Your task to perform on an android device: change keyboard looks Image 0: 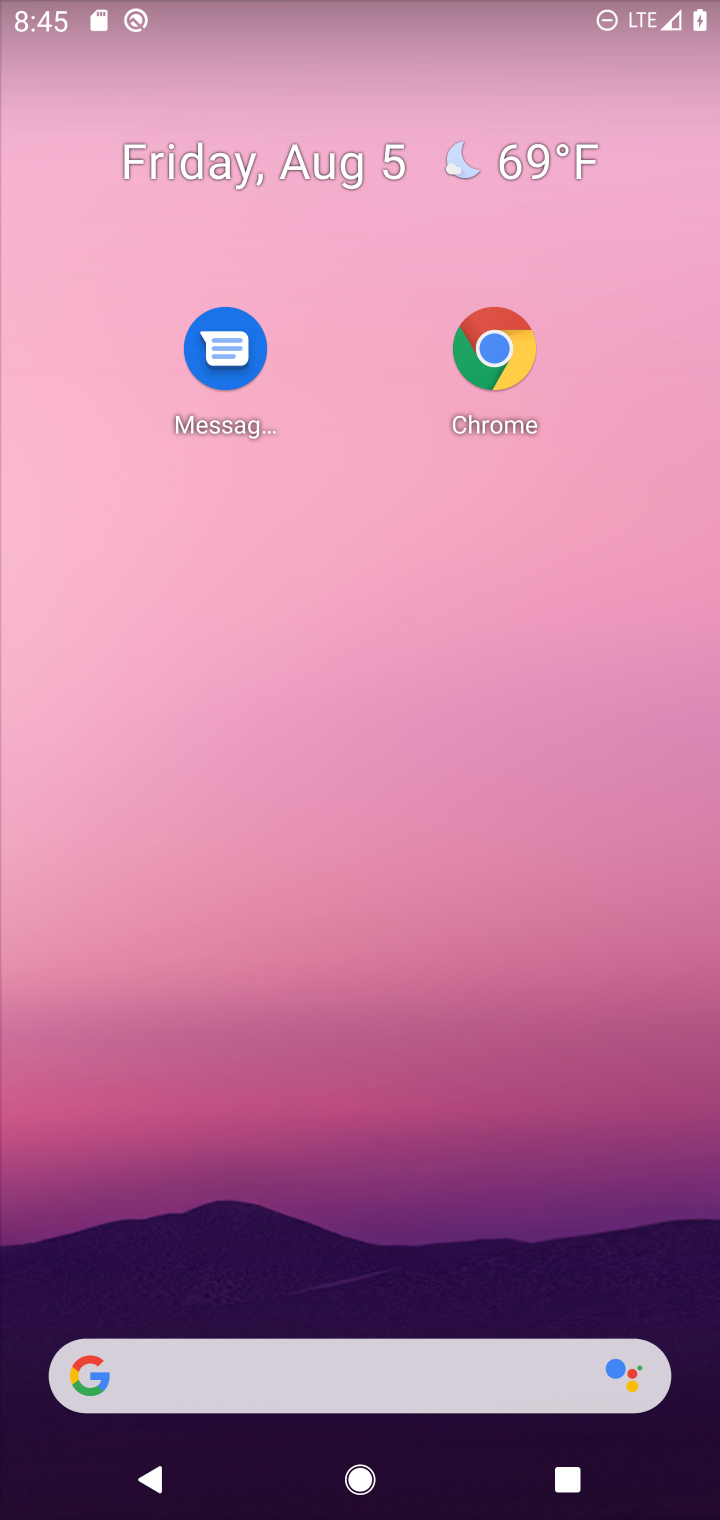
Step 0: press home button
Your task to perform on an android device: change keyboard looks Image 1: 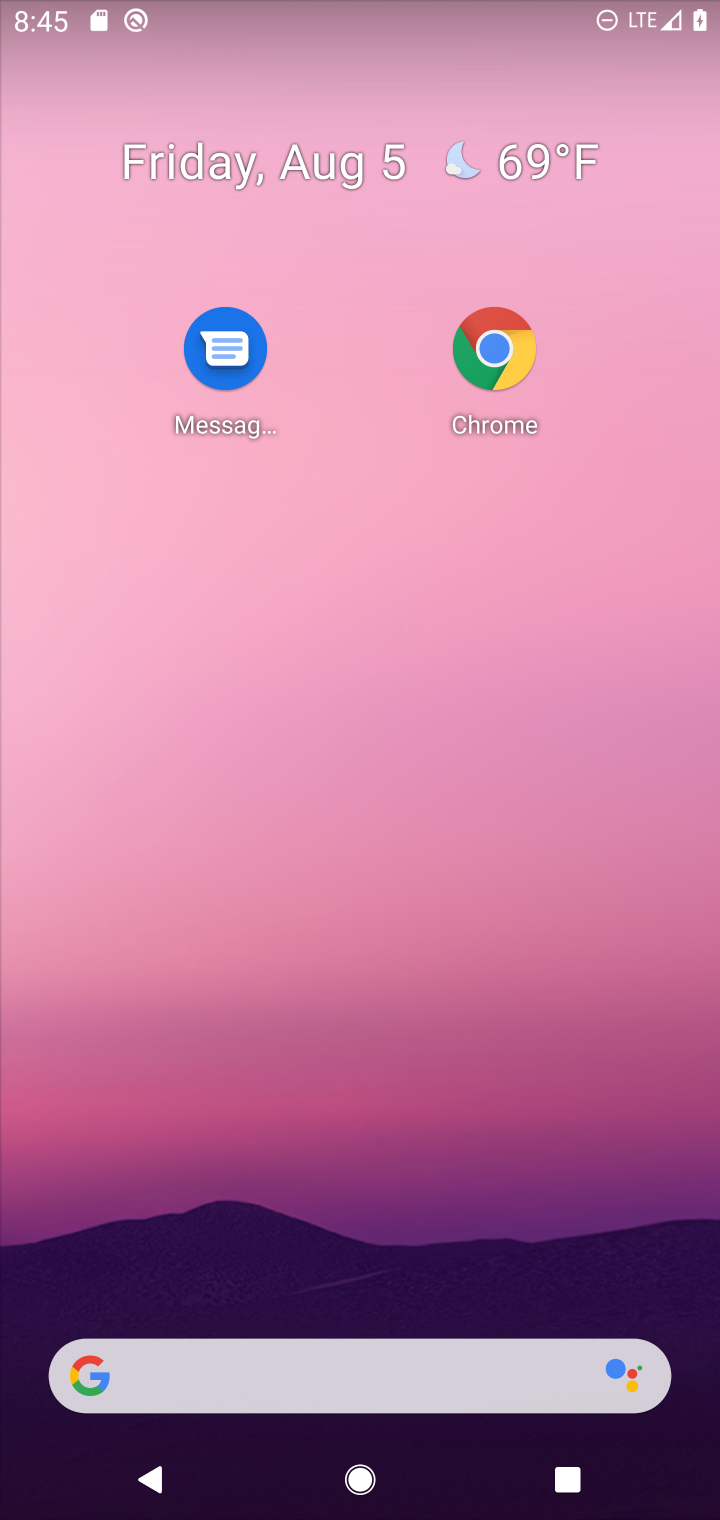
Step 1: drag from (491, 1438) to (454, 665)
Your task to perform on an android device: change keyboard looks Image 2: 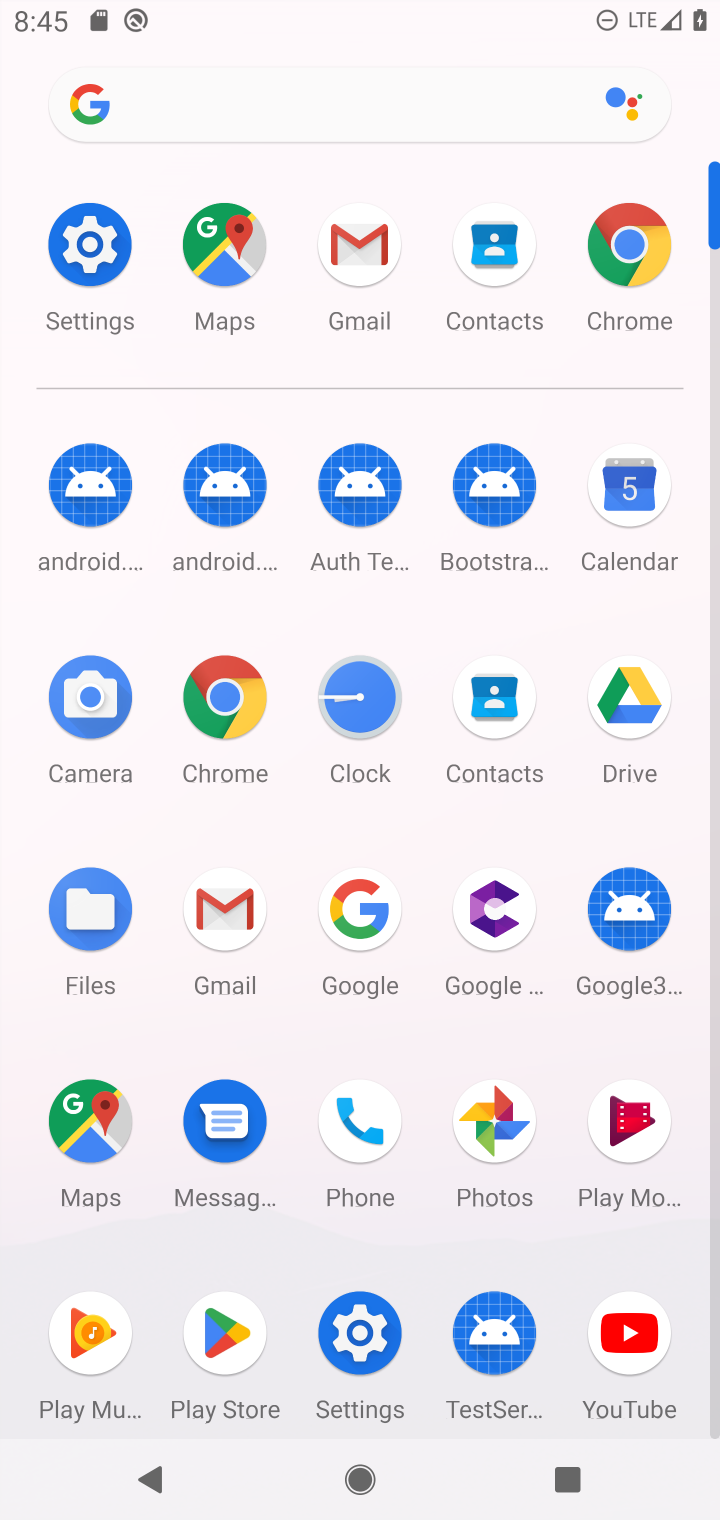
Step 2: click (67, 265)
Your task to perform on an android device: change keyboard looks Image 3: 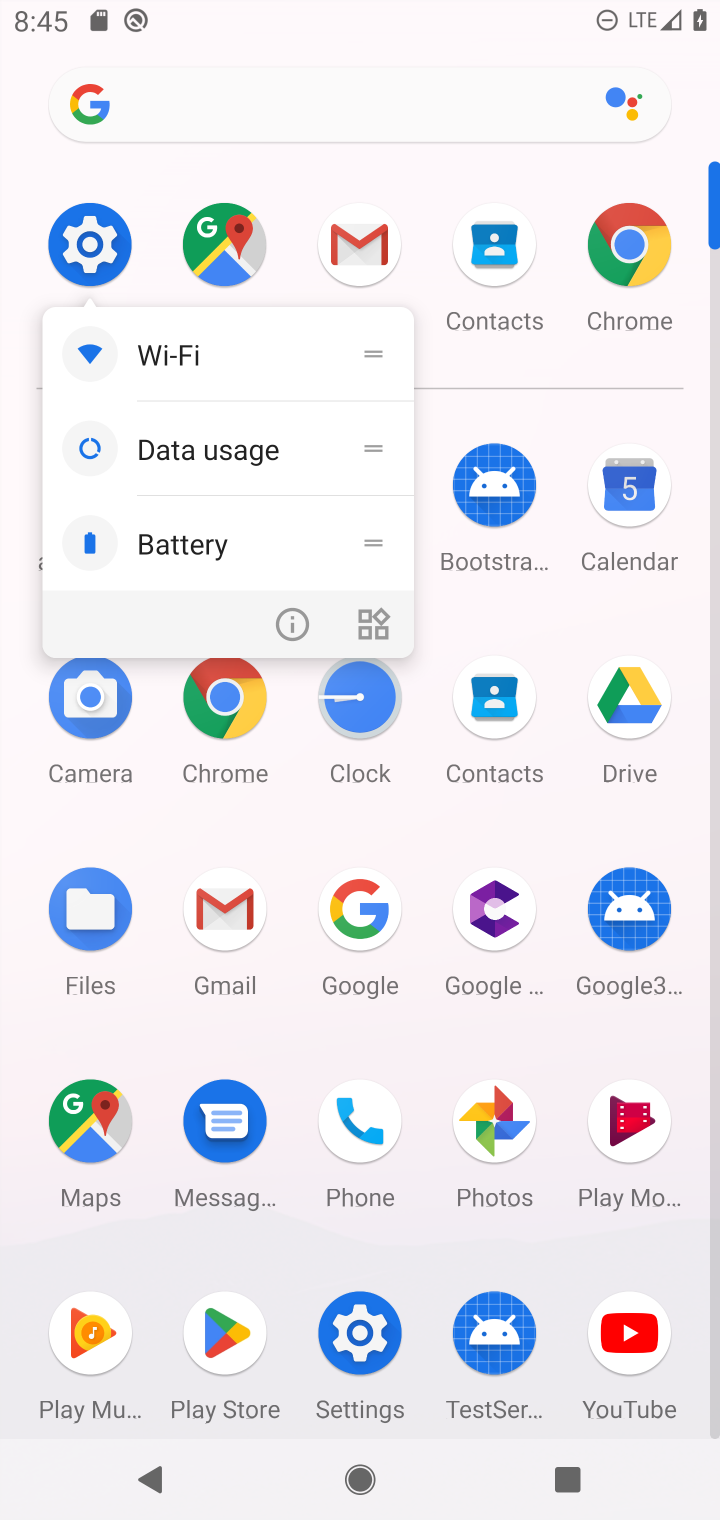
Step 3: click (89, 246)
Your task to perform on an android device: change keyboard looks Image 4: 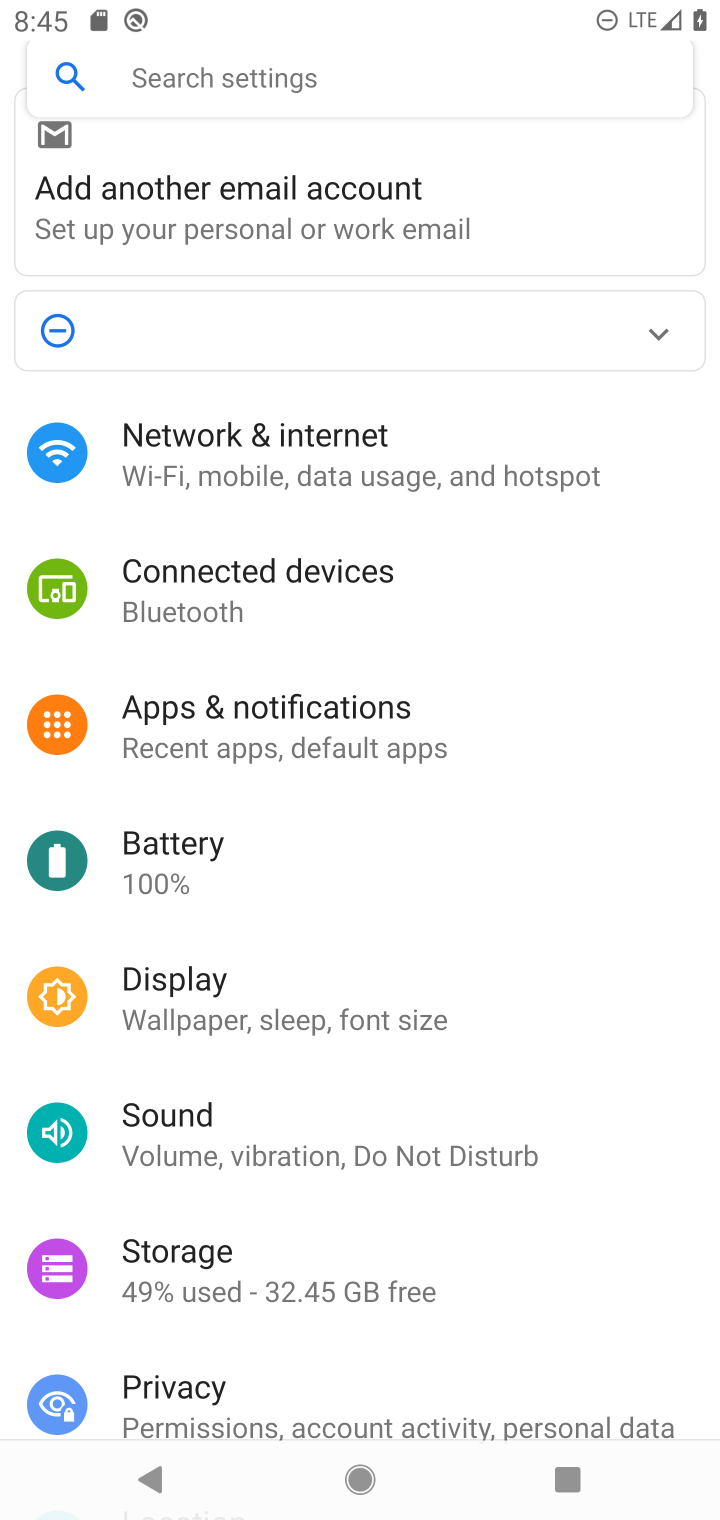
Step 4: click (256, 84)
Your task to perform on an android device: change keyboard looks Image 5: 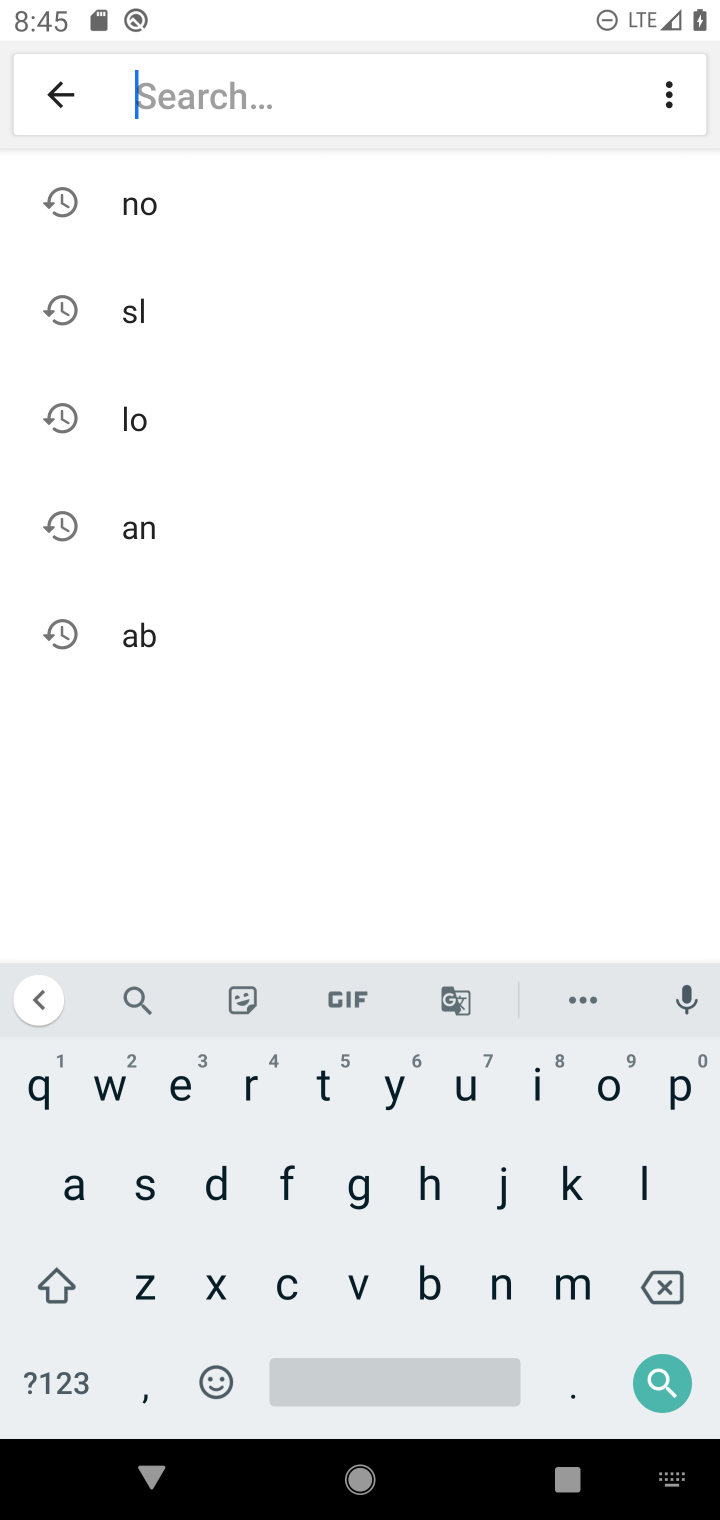
Step 5: click (574, 1180)
Your task to perform on an android device: change keyboard looks Image 6: 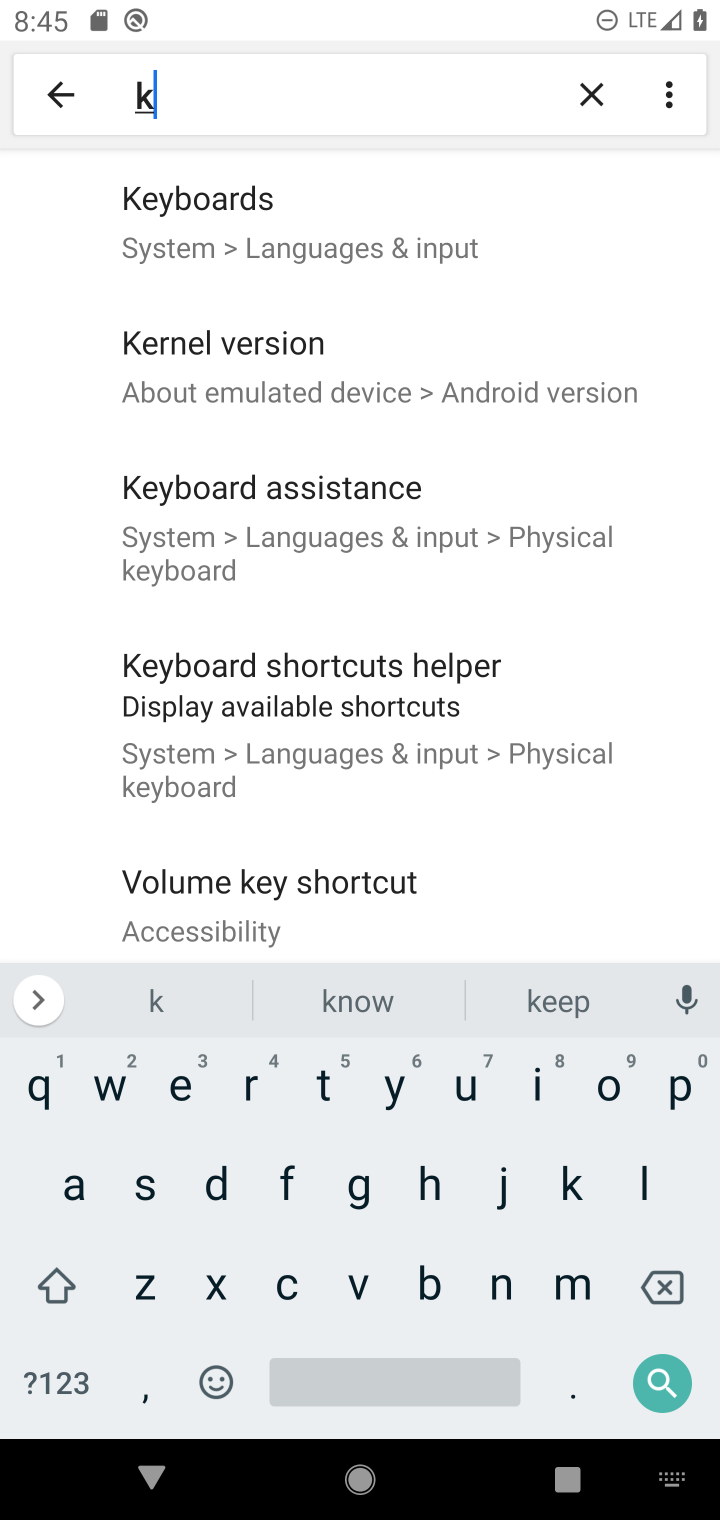
Step 6: click (233, 212)
Your task to perform on an android device: change keyboard looks Image 7: 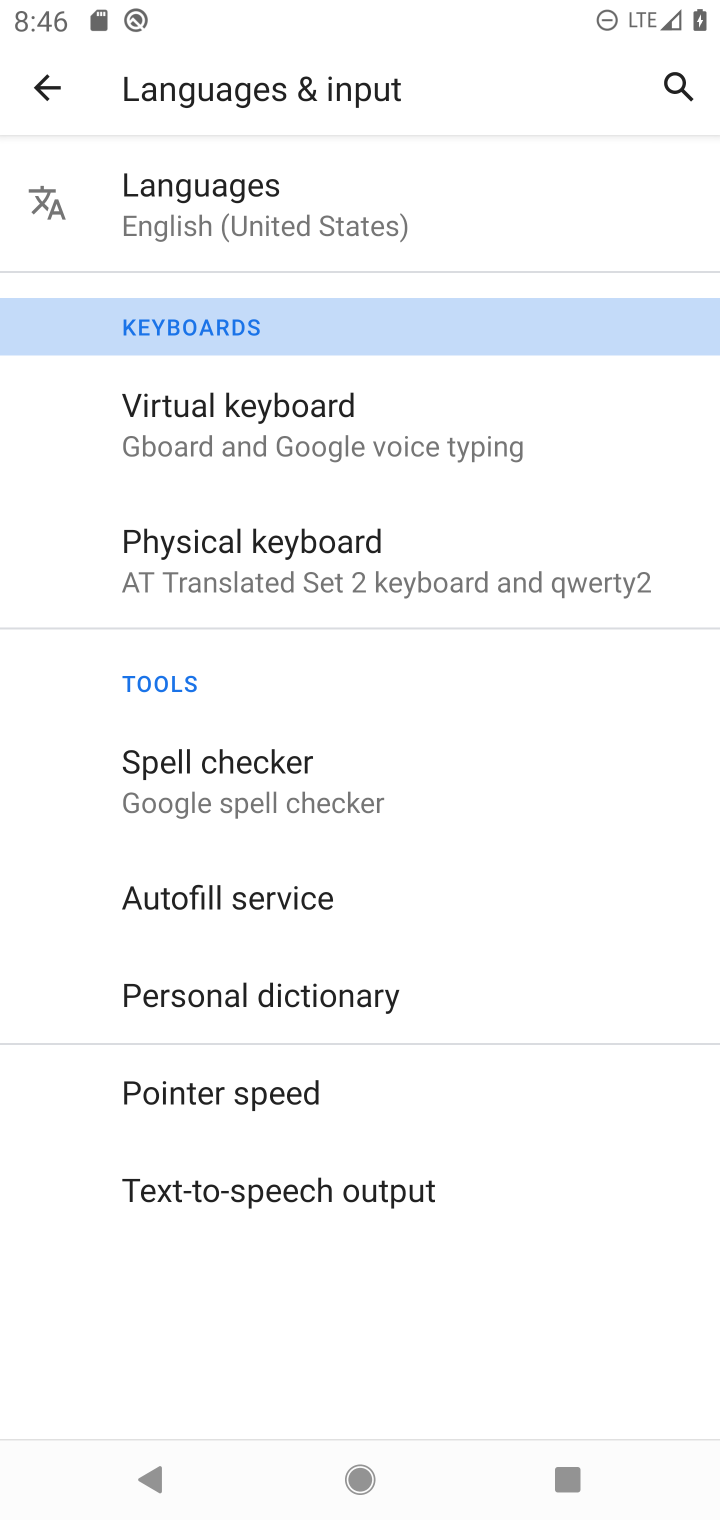
Step 7: click (249, 434)
Your task to perform on an android device: change keyboard looks Image 8: 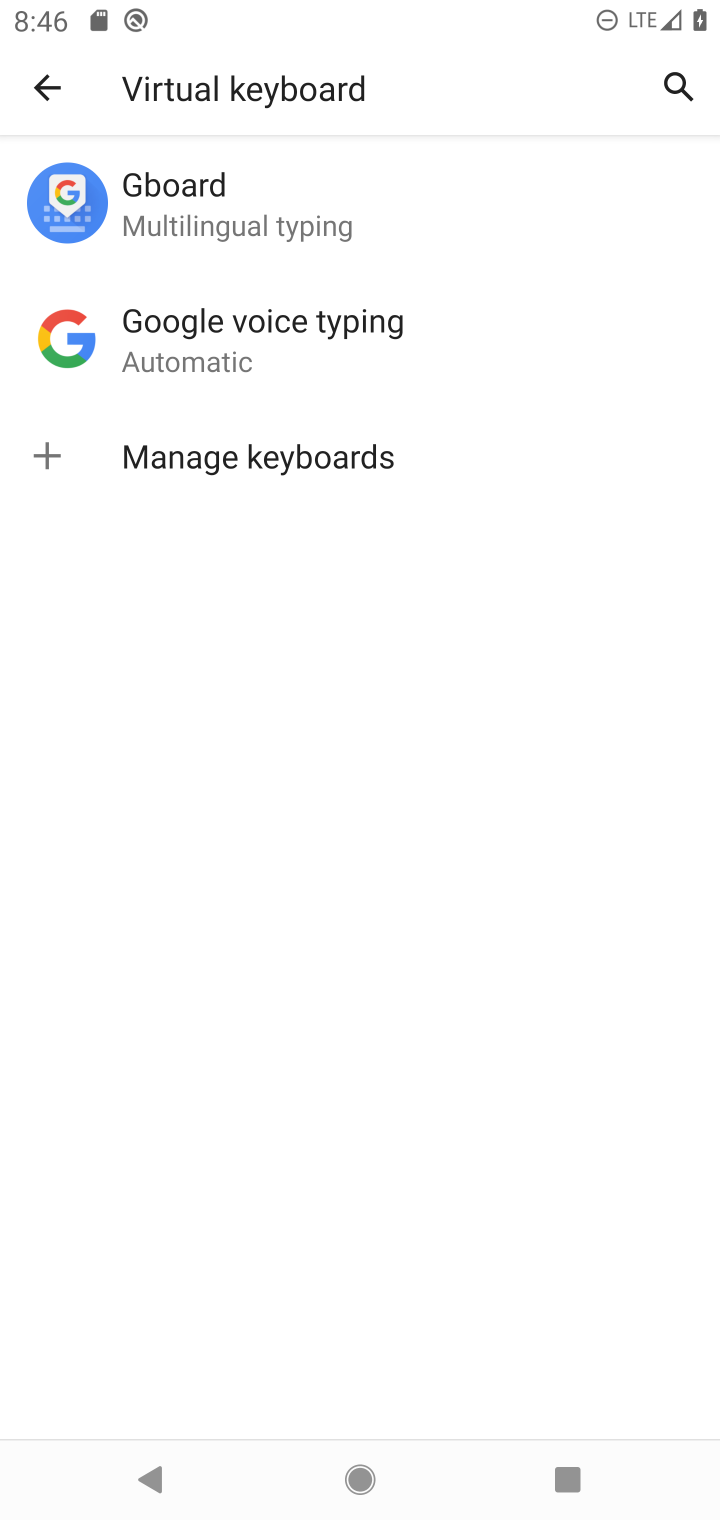
Step 8: click (229, 217)
Your task to perform on an android device: change keyboard looks Image 9: 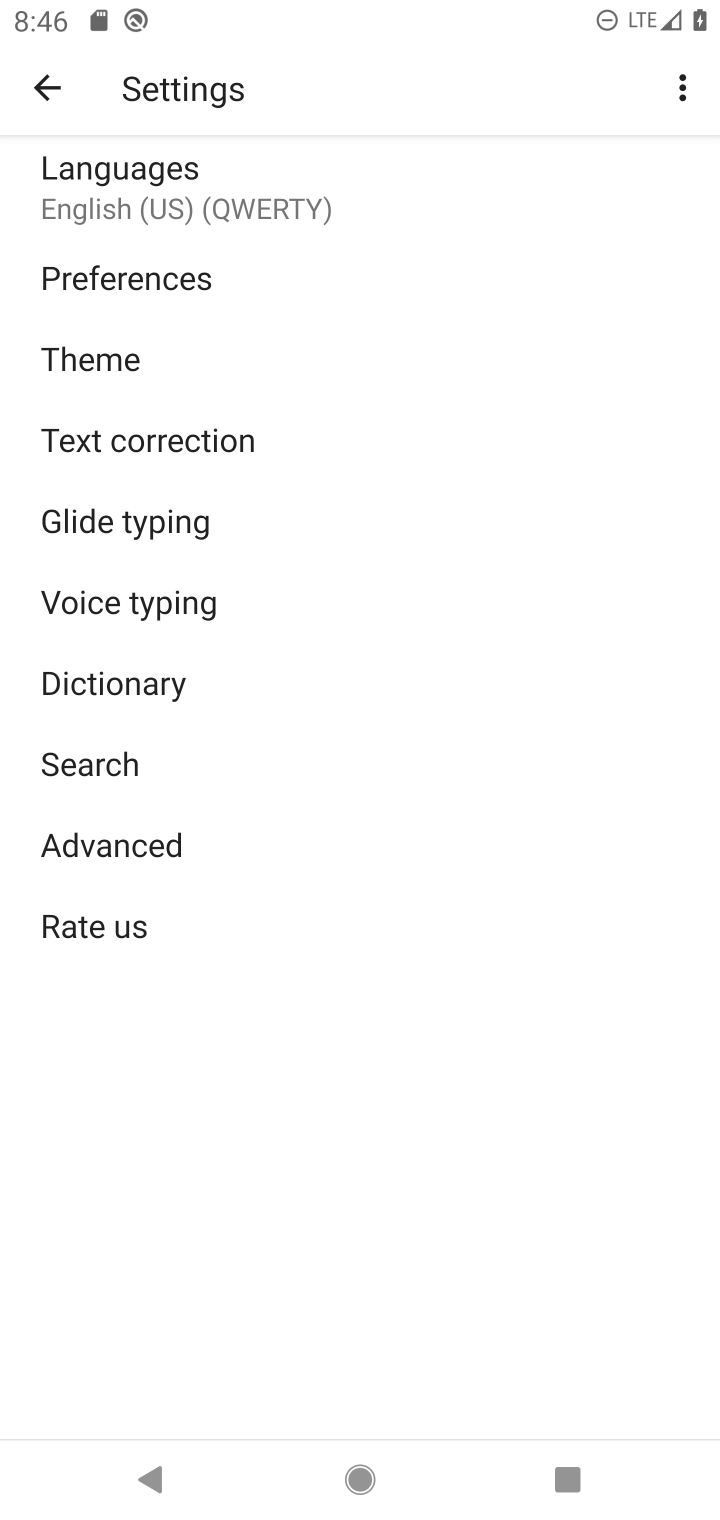
Step 9: click (143, 366)
Your task to perform on an android device: change keyboard looks Image 10: 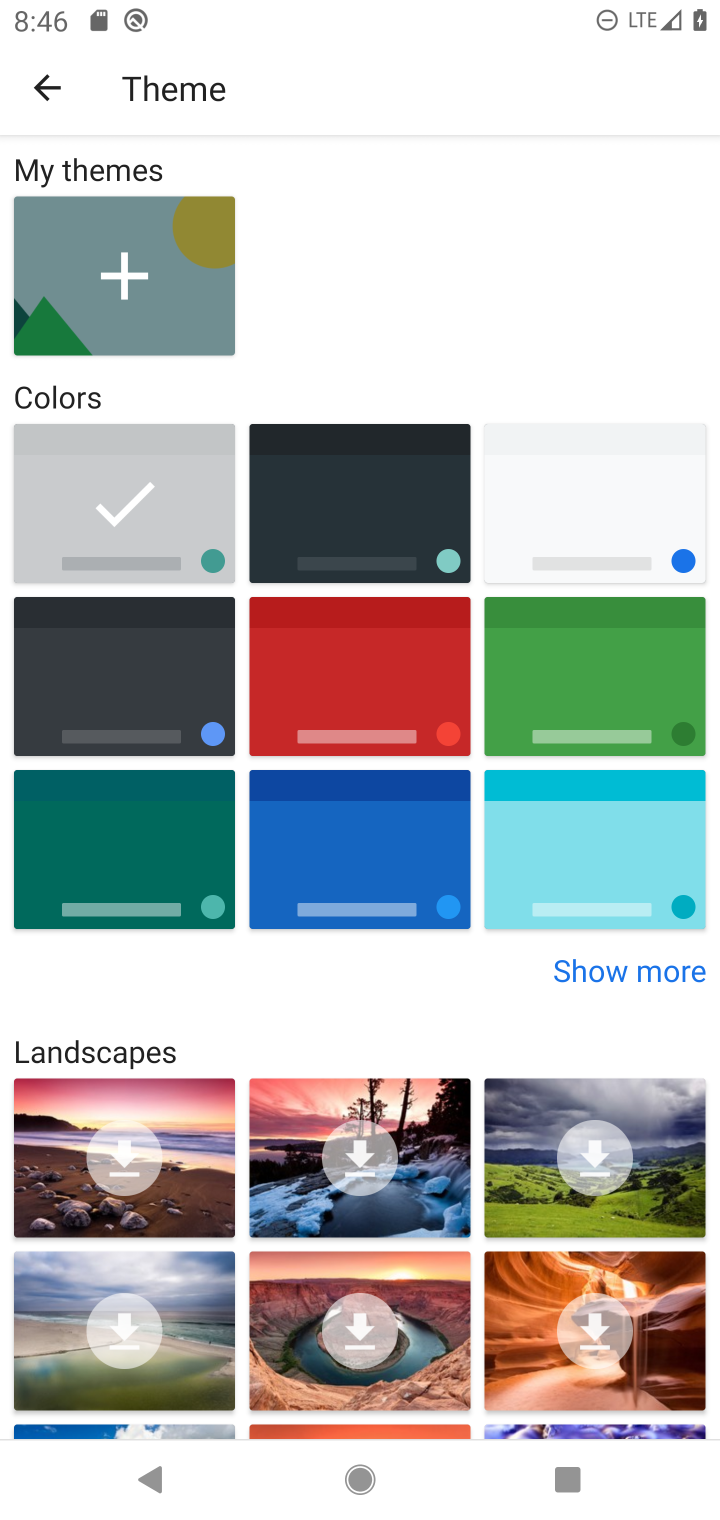
Step 10: click (576, 702)
Your task to perform on an android device: change keyboard looks Image 11: 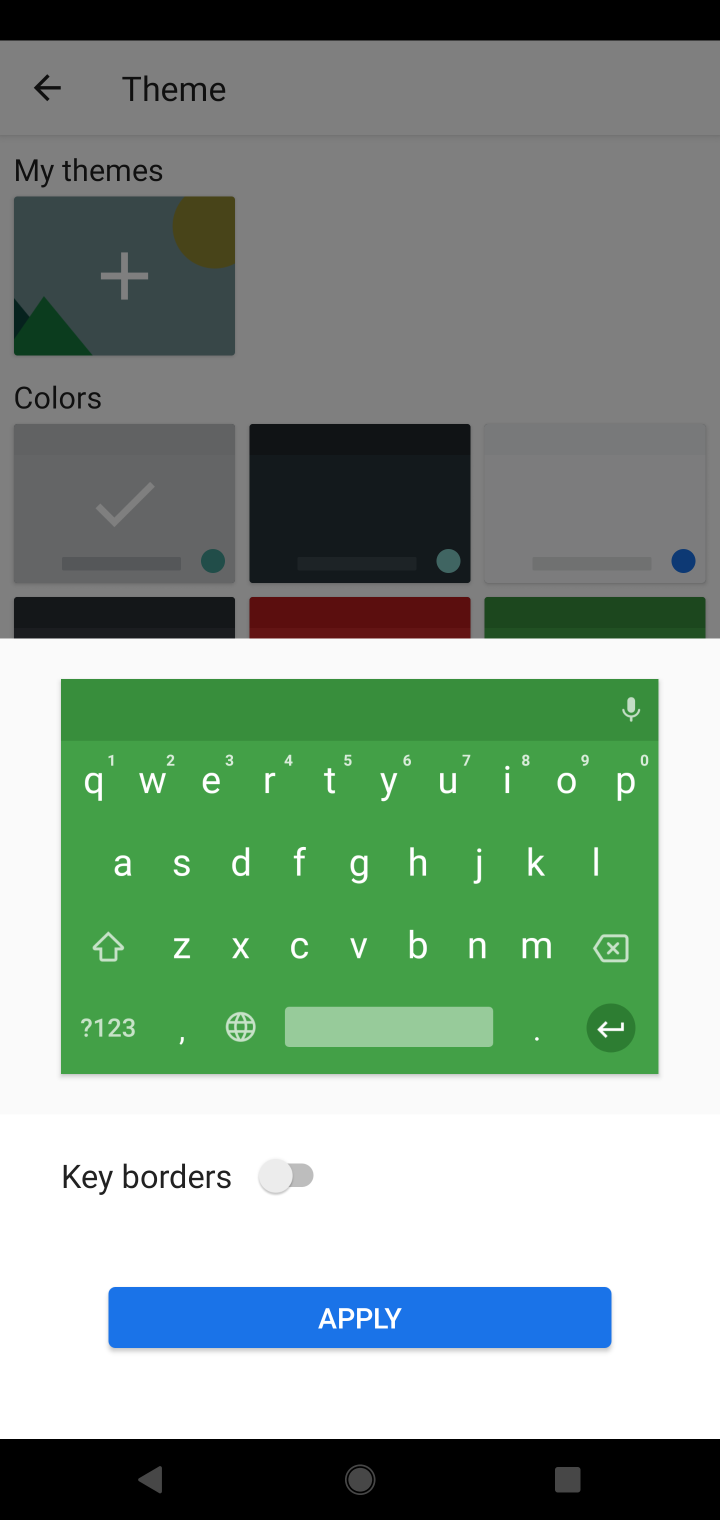
Step 11: click (279, 1170)
Your task to perform on an android device: change keyboard looks Image 12: 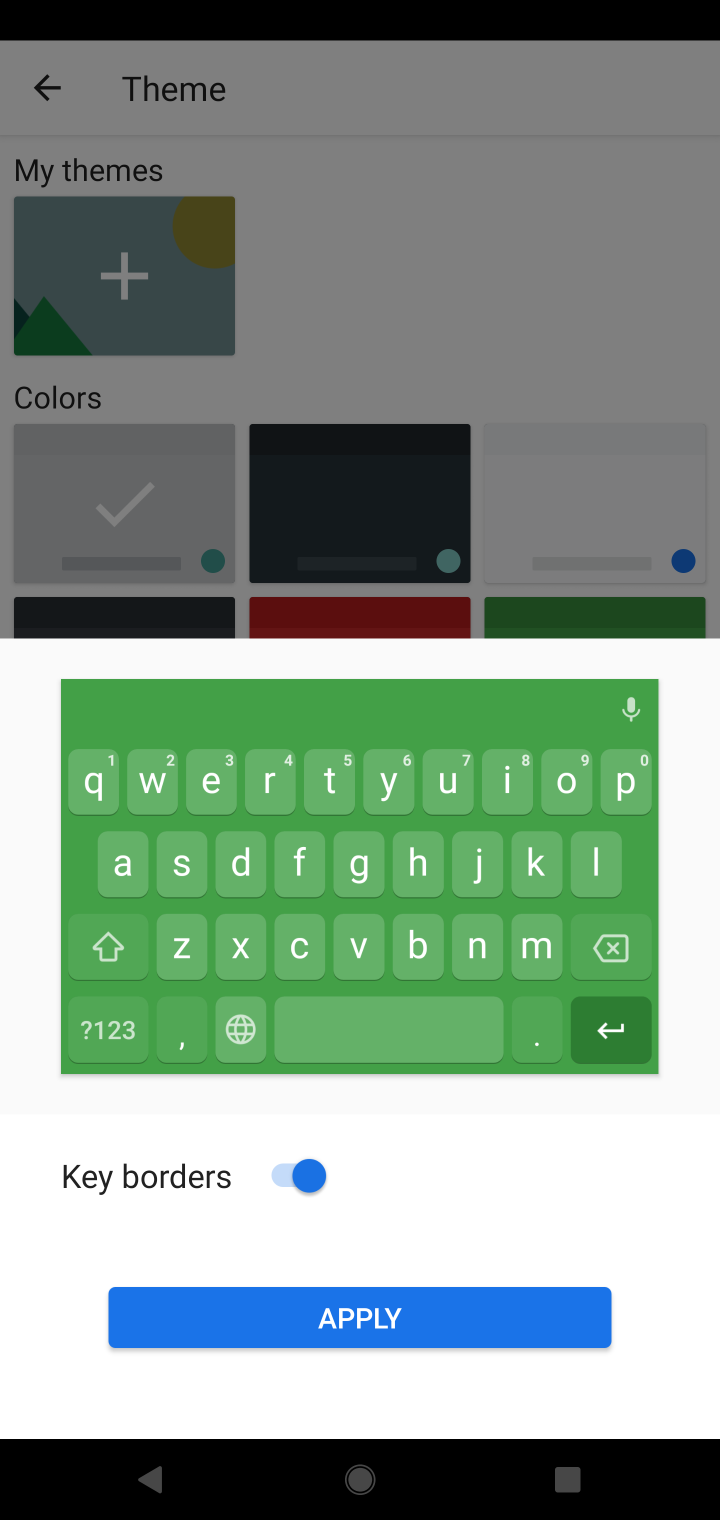
Step 12: click (306, 1334)
Your task to perform on an android device: change keyboard looks Image 13: 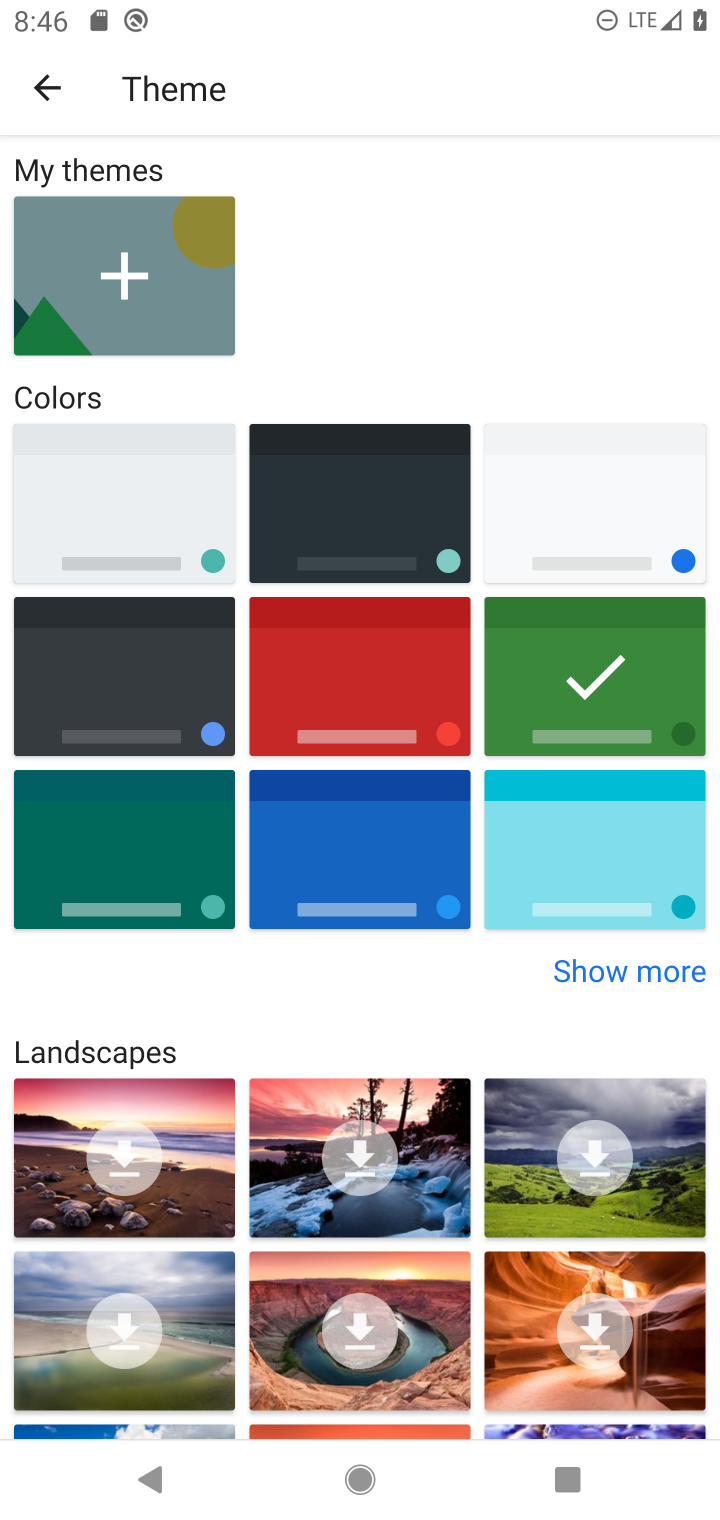
Step 13: task complete